Your task to perform on an android device: Open the calendar and show me this week's events? Image 0: 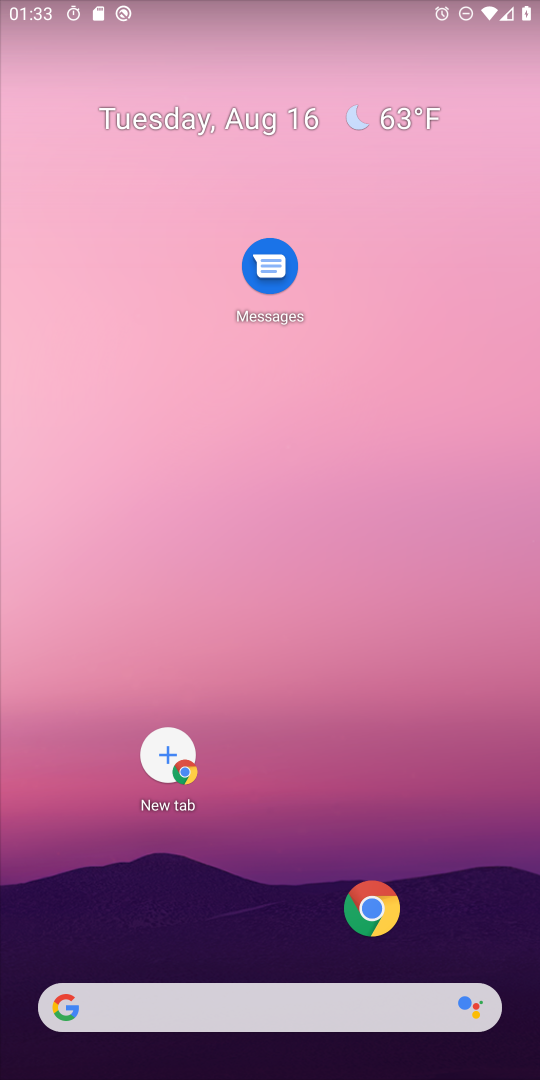
Step 0: click (212, 102)
Your task to perform on an android device: Open the calendar and show me this week's events? Image 1: 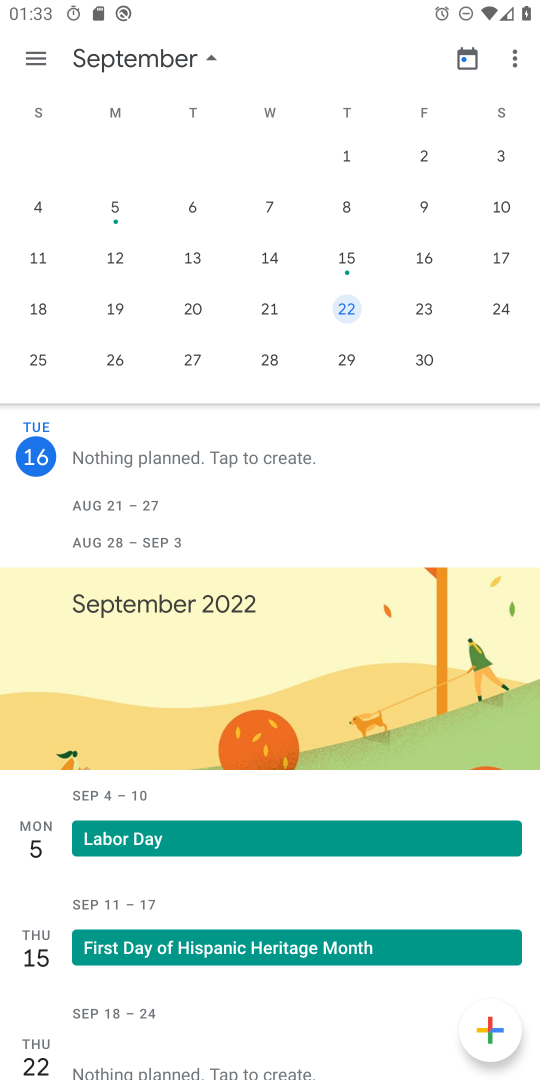
Step 1: task complete